Your task to perform on an android device: Find coffee shops on Maps Image 0: 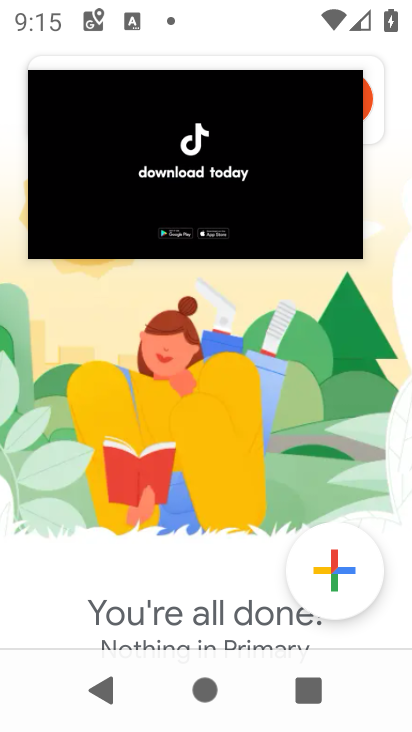
Step 0: click (332, 86)
Your task to perform on an android device: Find coffee shops on Maps Image 1: 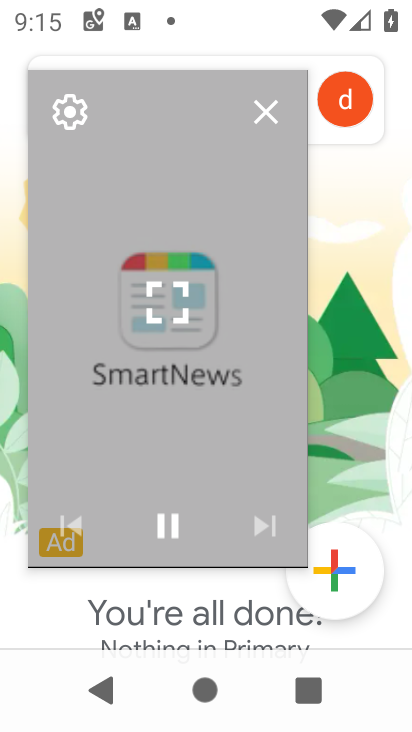
Step 1: click (270, 112)
Your task to perform on an android device: Find coffee shops on Maps Image 2: 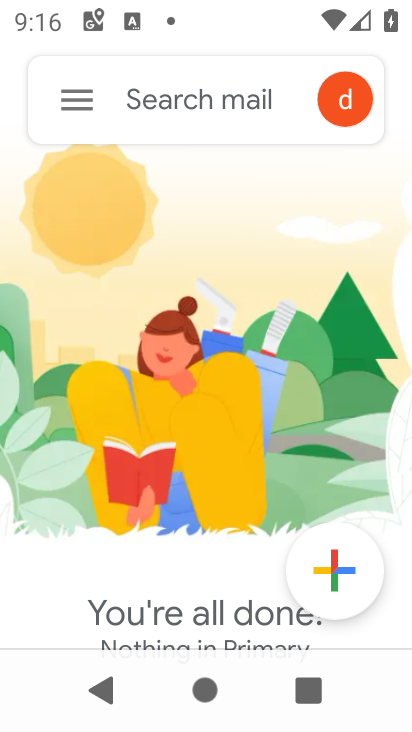
Step 2: press home button
Your task to perform on an android device: Find coffee shops on Maps Image 3: 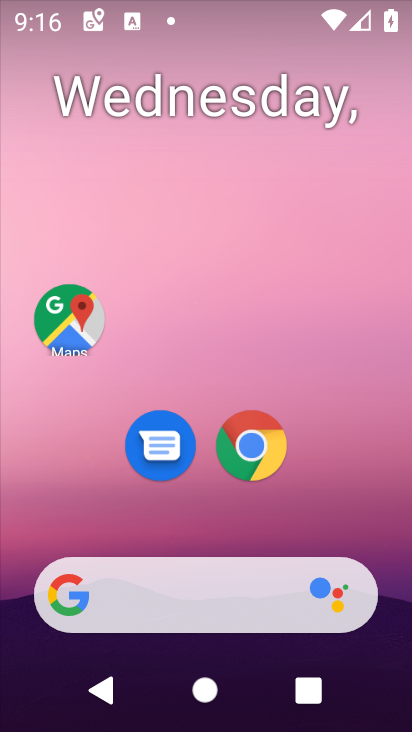
Step 3: drag from (348, 539) to (319, 26)
Your task to perform on an android device: Find coffee shops on Maps Image 4: 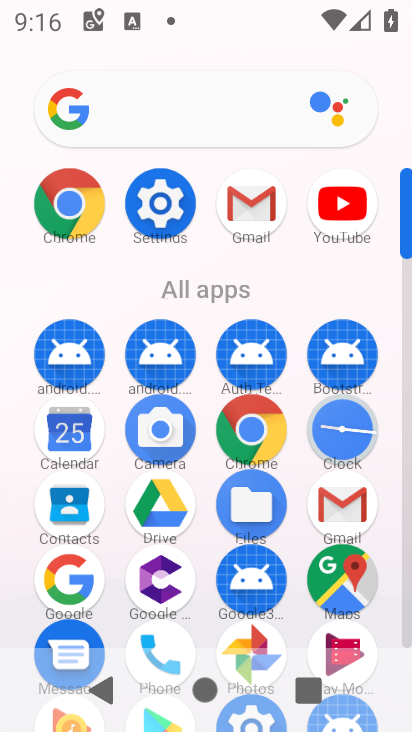
Step 4: click (344, 600)
Your task to perform on an android device: Find coffee shops on Maps Image 5: 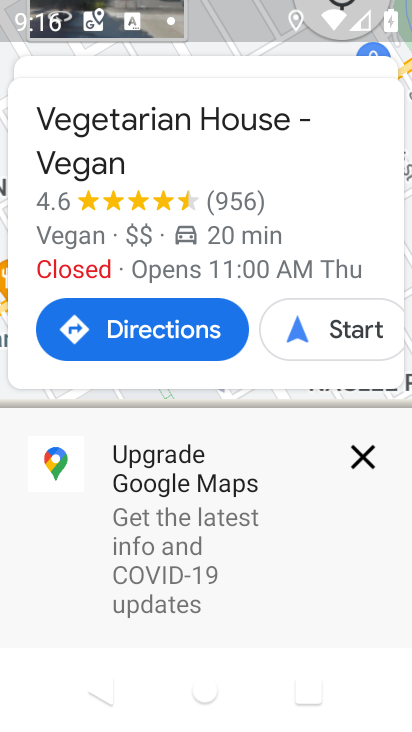
Step 5: click (276, 93)
Your task to perform on an android device: Find coffee shops on Maps Image 6: 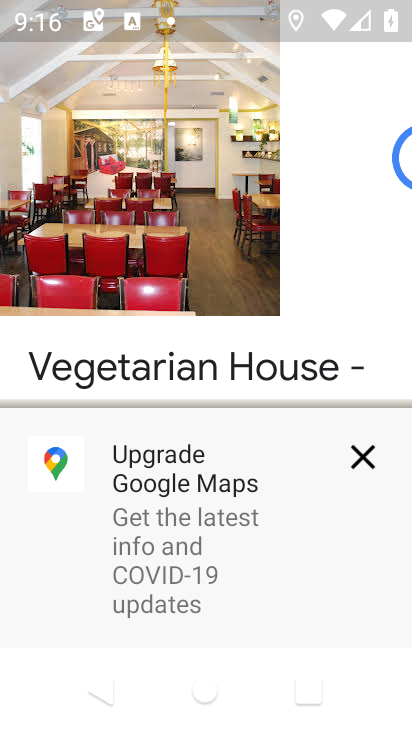
Step 6: click (363, 463)
Your task to perform on an android device: Find coffee shops on Maps Image 7: 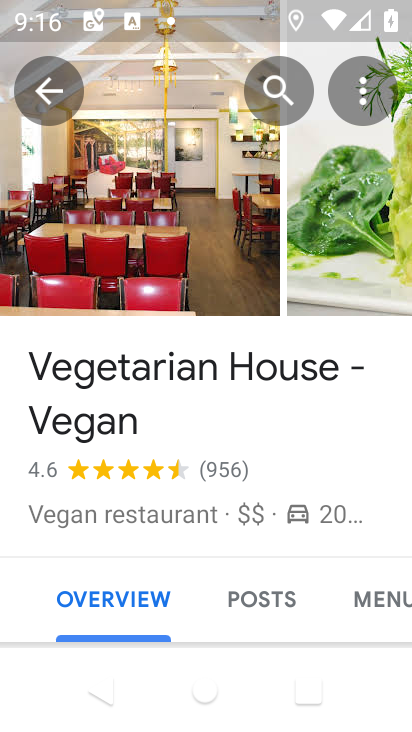
Step 7: click (33, 78)
Your task to perform on an android device: Find coffee shops on Maps Image 8: 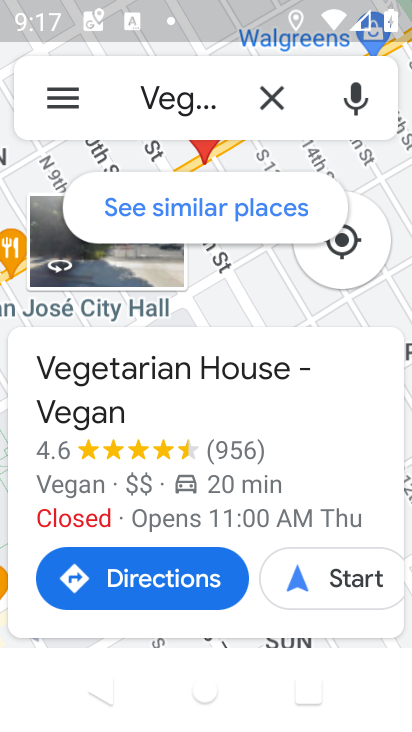
Step 8: click (266, 91)
Your task to perform on an android device: Find coffee shops on Maps Image 9: 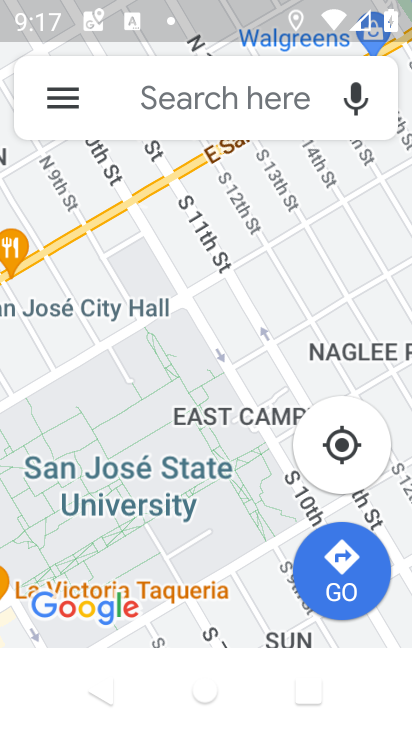
Step 9: click (220, 109)
Your task to perform on an android device: Find coffee shops on Maps Image 10: 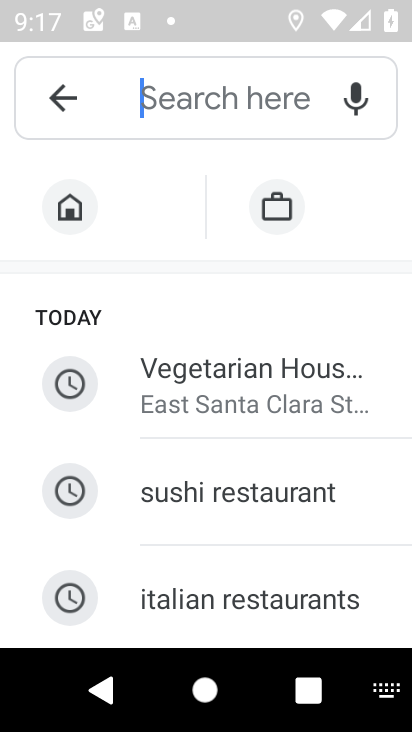
Step 10: type "coffee"
Your task to perform on an android device: Find coffee shops on Maps Image 11: 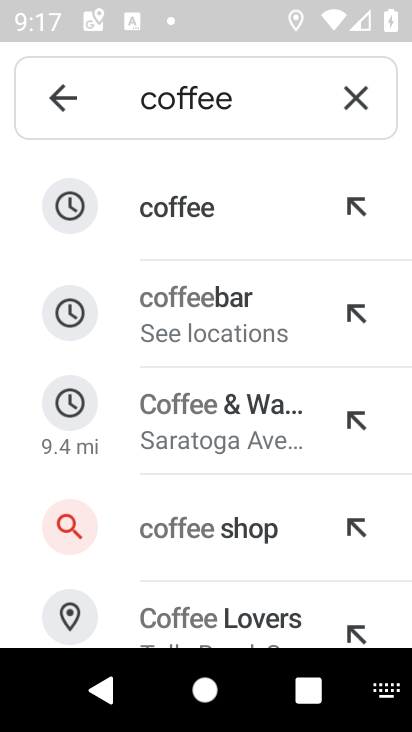
Step 11: click (191, 207)
Your task to perform on an android device: Find coffee shops on Maps Image 12: 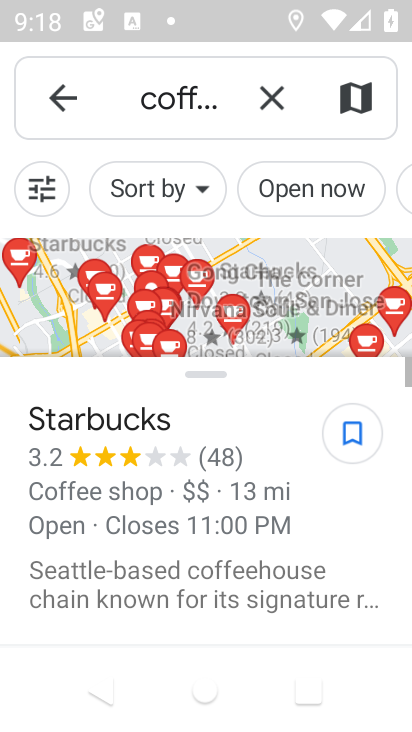
Step 12: task complete